Your task to perform on an android device: Set the phone to "Do not disturb". Image 0: 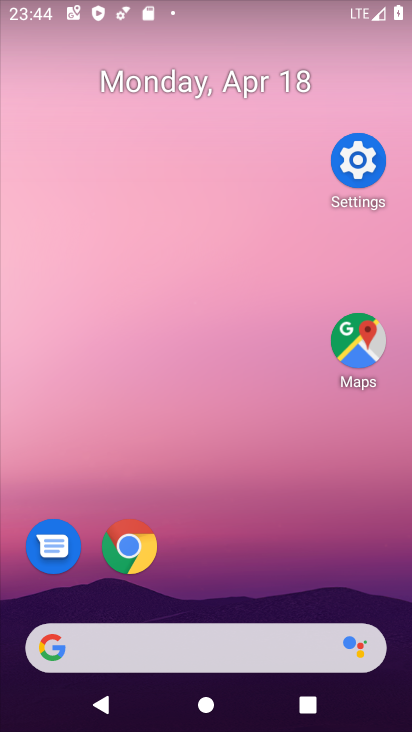
Step 0: drag from (268, 684) to (171, 220)
Your task to perform on an android device: Set the phone to "Do not disturb". Image 1: 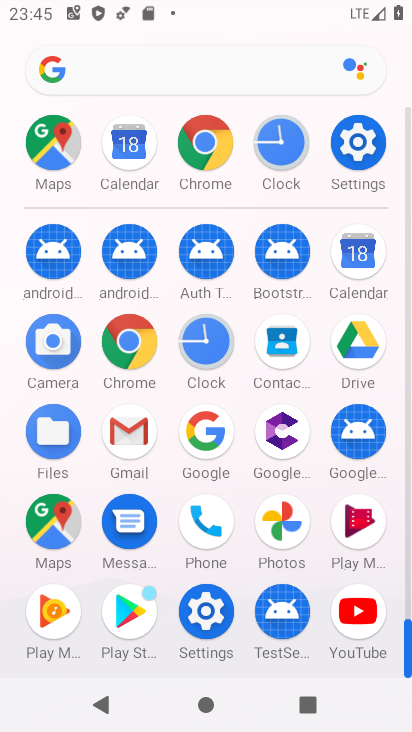
Step 1: click (353, 149)
Your task to perform on an android device: Set the phone to "Do not disturb". Image 2: 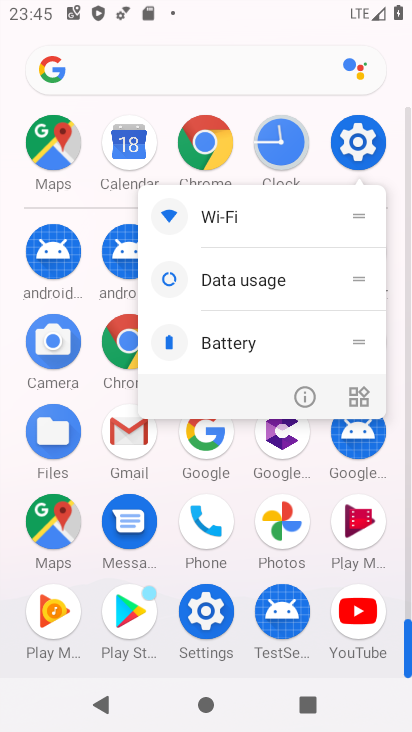
Step 2: click (355, 150)
Your task to perform on an android device: Set the phone to "Do not disturb". Image 3: 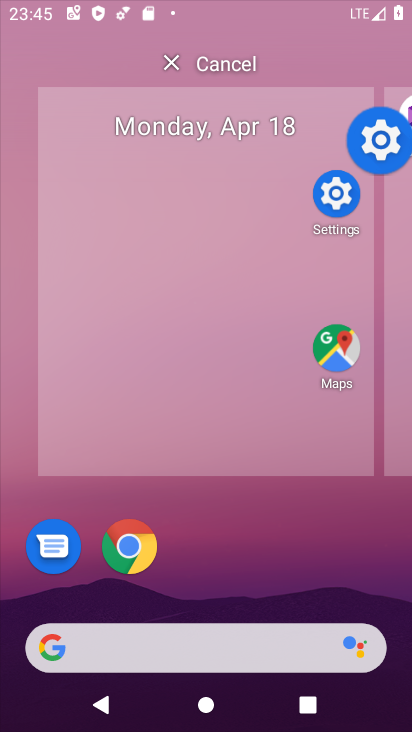
Step 3: click (345, 141)
Your task to perform on an android device: Set the phone to "Do not disturb". Image 4: 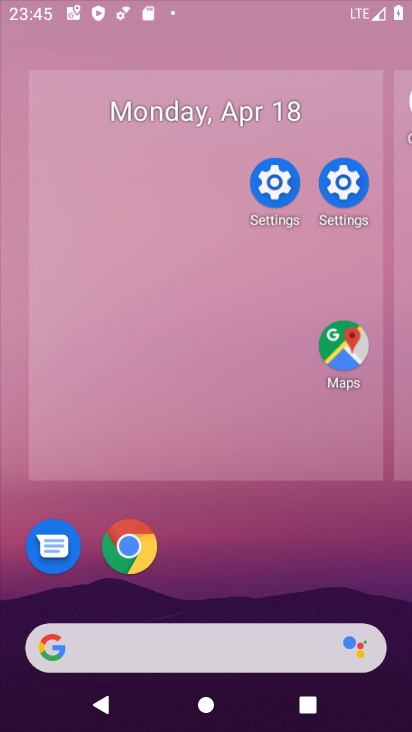
Step 4: click (346, 142)
Your task to perform on an android device: Set the phone to "Do not disturb". Image 5: 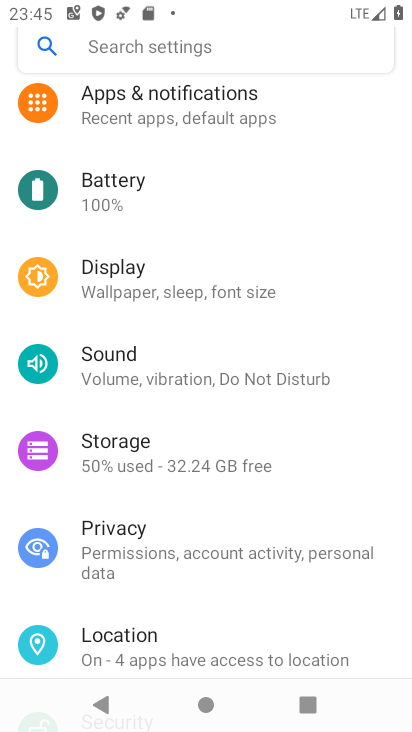
Step 5: click (112, 374)
Your task to perform on an android device: Set the phone to "Do not disturb". Image 6: 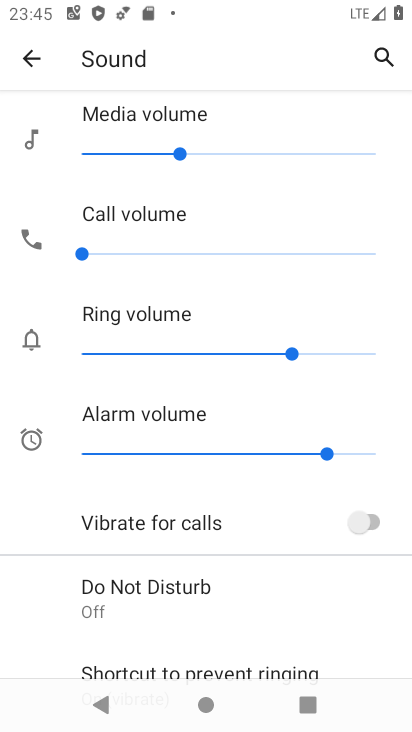
Step 6: drag from (177, 610) to (195, 308)
Your task to perform on an android device: Set the phone to "Do not disturb". Image 7: 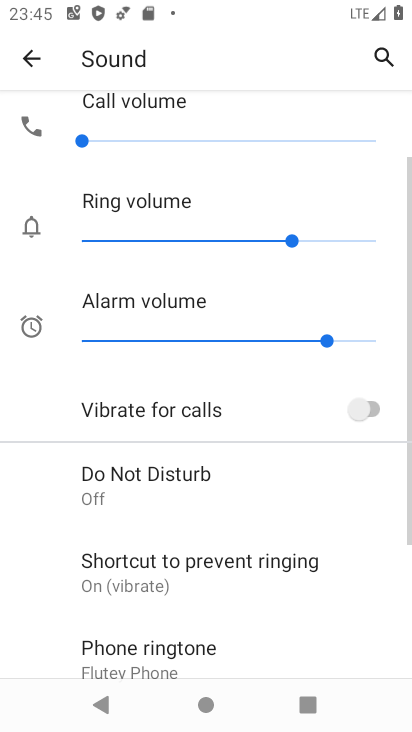
Step 7: drag from (220, 592) to (219, 345)
Your task to perform on an android device: Set the phone to "Do not disturb". Image 8: 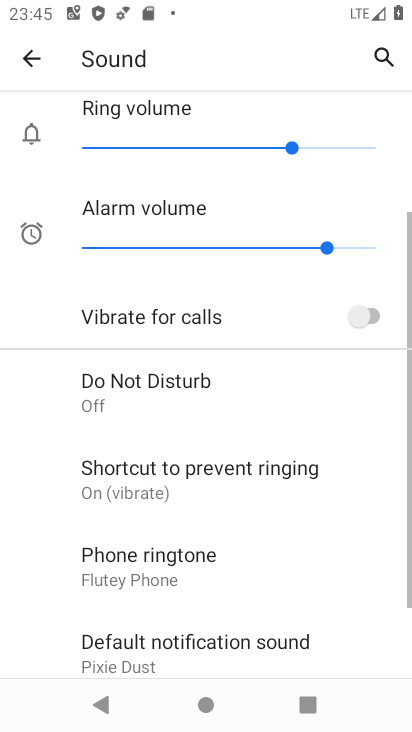
Step 8: drag from (192, 571) to (230, 253)
Your task to perform on an android device: Set the phone to "Do not disturb". Image 9: 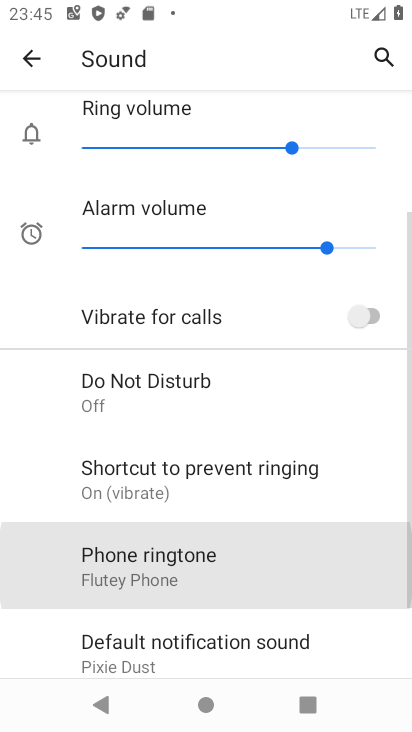
Step 9: drag from (142, 634) to (282, 311)
Your task to perform on an android device: Set the phone to "Do not disturb". Image 10: 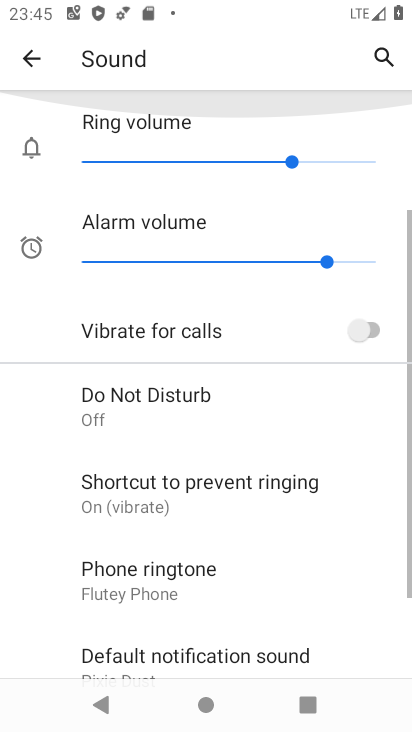
Step 10: drag from (256, 501) to (273, 176)
Your task to perform on an android device: Set the phone to "Do not disturb". Image 11: 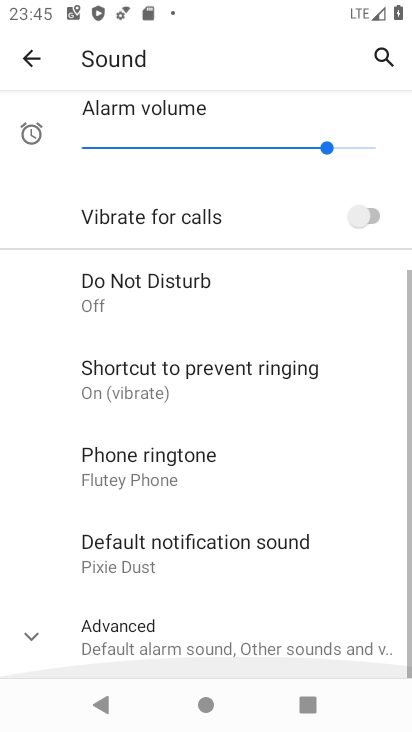
Step 11: drag from (254, 530) to (219, 181)
Your task to perform on an android device: Set the phone to "Do not disturb". Image 12: 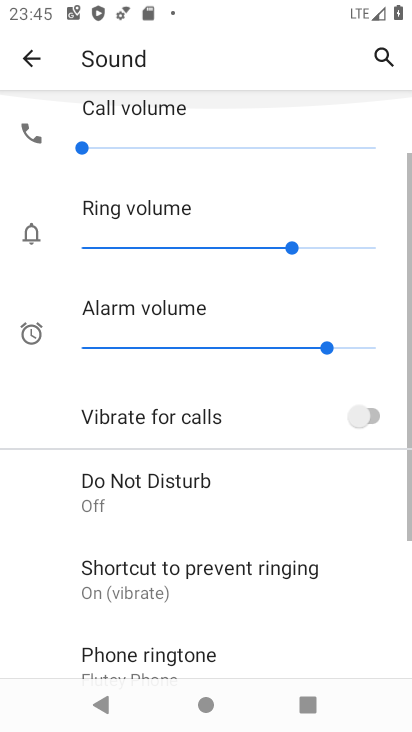
Step 12: drag from (189, 682) to (231, 273)
Your task to perform on an android device: Set the phone to "Do not disturb". Image 13: 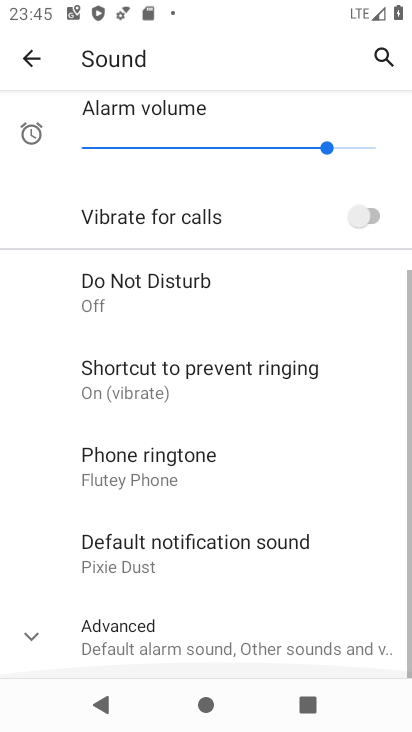
Step 13: drag from (261, 627) to (203, 280)
Your task to perform on an android device: Set the phone to "Do not disturb". Image 14: 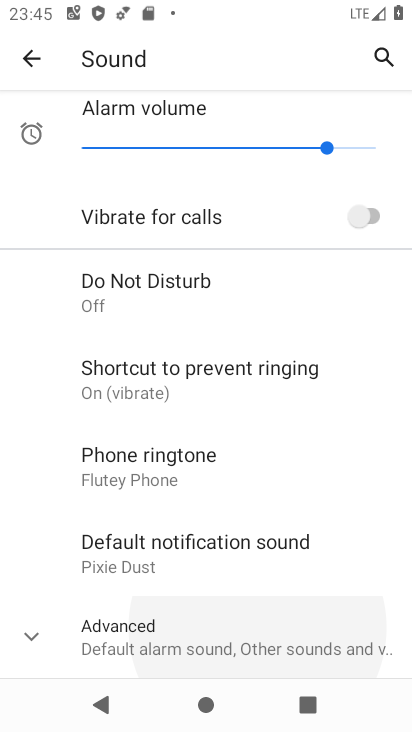
Step 14: drag from (217, 512) to (184, 194)
Your task to perform on an android device: Set the phone to "Do not disturb". Image 15: 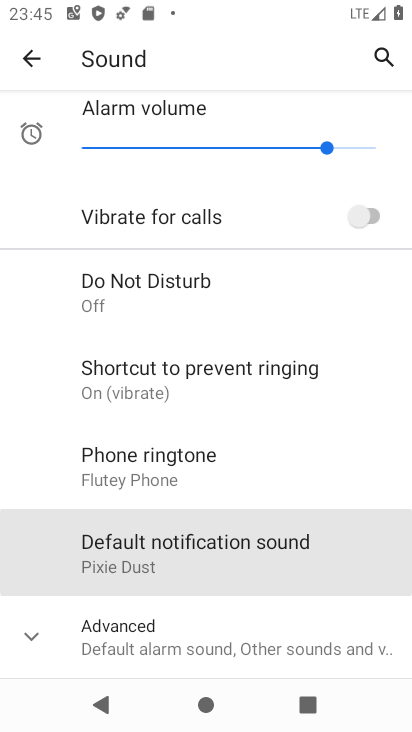
Step 15: drag from (195, 466) to (212, 305)
Your task to perform on an android device: Set the phone to "Do not disturb". Image 16: 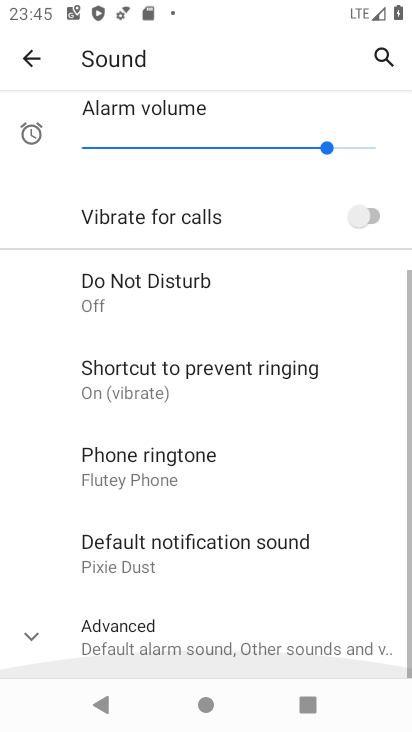
Step 16: drag from (272, 482) to (285, 148)
Your task to perform on an android device: Set the phone to "Do not disturb". Image 17: 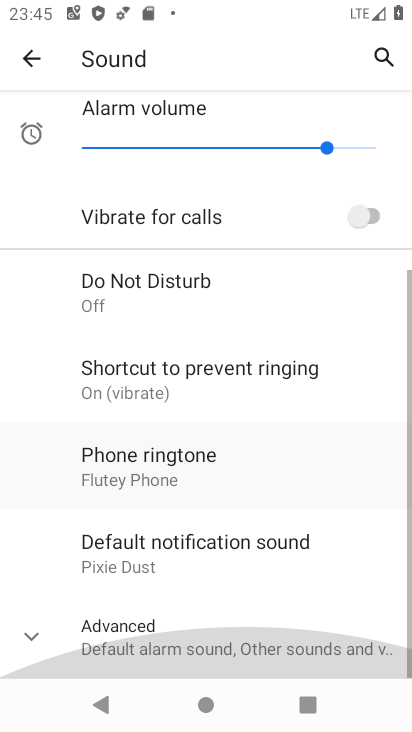
Step 17: drag from (301, 445) to (194, 299)
Your task to perform on an android device: Set the phone to "Do not disturb". Image 18: 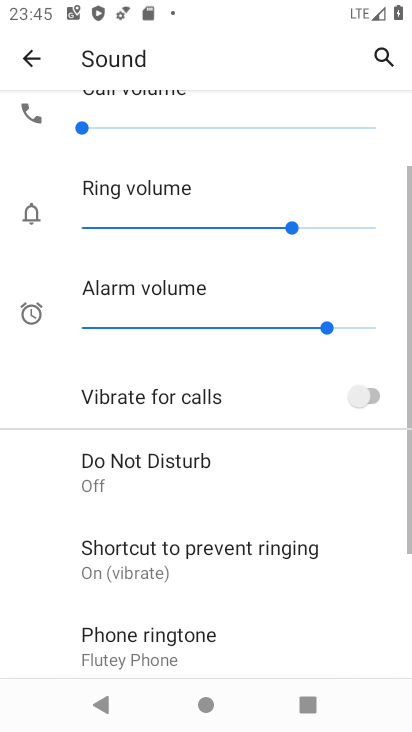
Step 18: drag from (273, 581) to (264, 399)
Your task to perform on an android device: Set the phone to "Do not disturb". Image 19: 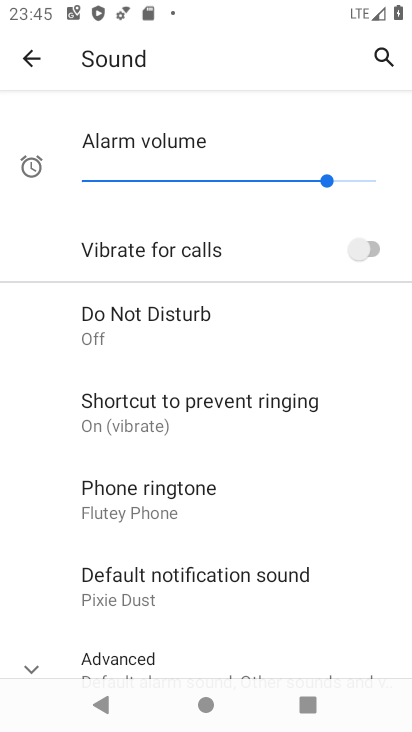
Step 19: drag from (270, 462) to (237, 270)
Your task to perform on an android device: Set the phone to "Do not disturb". Image 20: 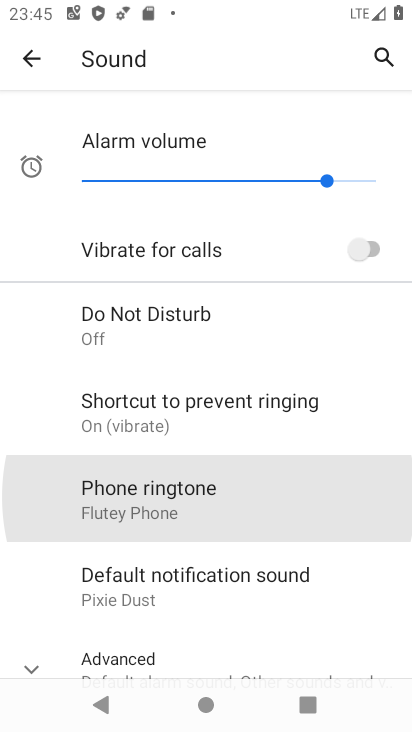
Step 20: drag from (218, 405) to (144, 287)
Your task to perform on an android device: Set the phone to "Do not disturb". Image 21: 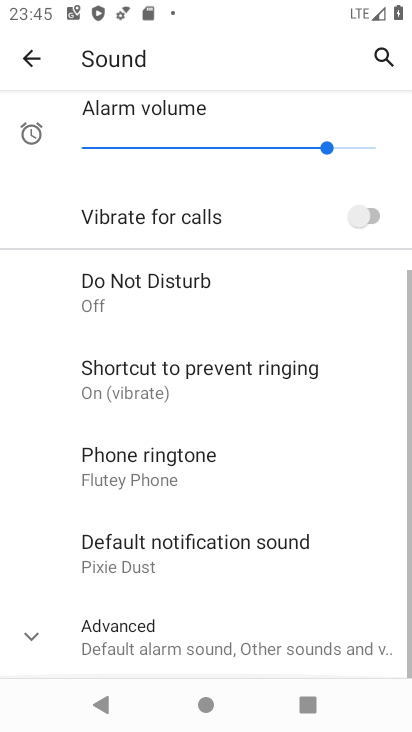
Step 21: drag from (103, 636) to (292, 385)
Your task to perform on an android device: Set the phone to "Do not disturb". Image 22: 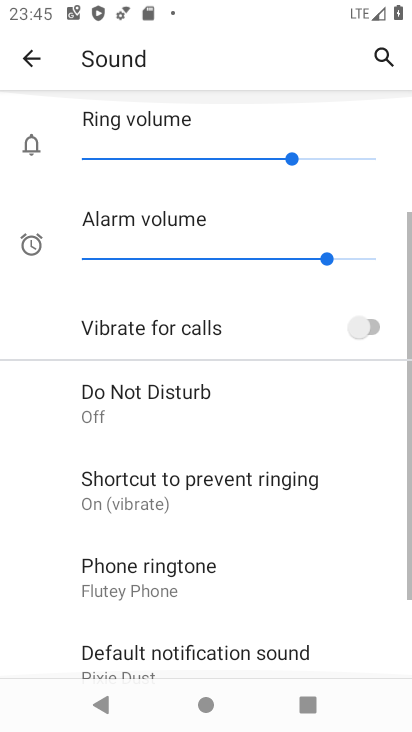
Step 22: drag from (210, 492) to (313, 419)
Your task to perform on an android device: Set the phone to "Do not disturb". Image 23: 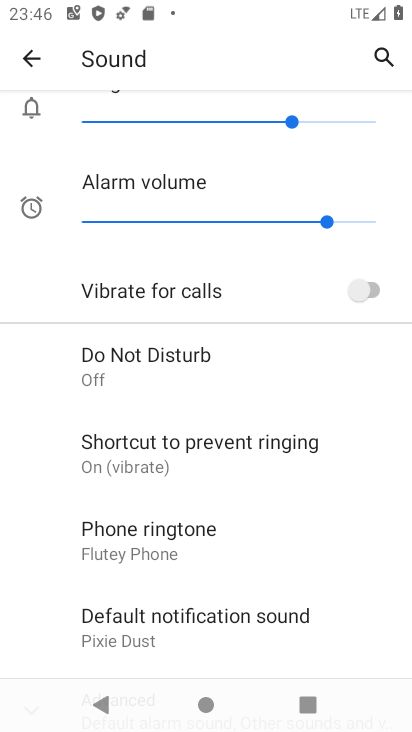
Step 23: drag from (176, 544) to (201, 273)
Your task to perform on an android device: Set the phone to "Do not disturb". Image 24: 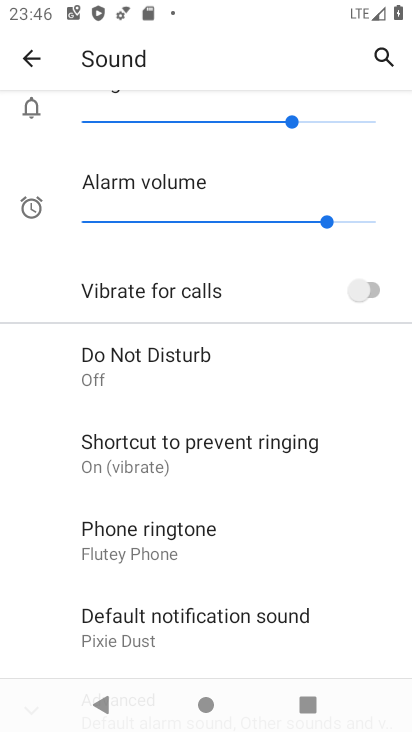
Step 24: drag from (249, 406) to (256, 132)
Your task to perform on an android device: Set the phone to "Do not disturb". Image 25: 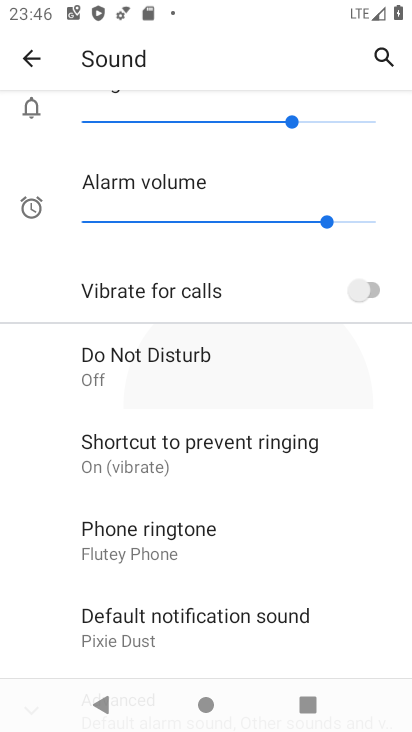
Step 25: drag from (183, 486) to (197, 208)
Your task to perform on an android device: Set the phone to "Do not disturb". Image 26: 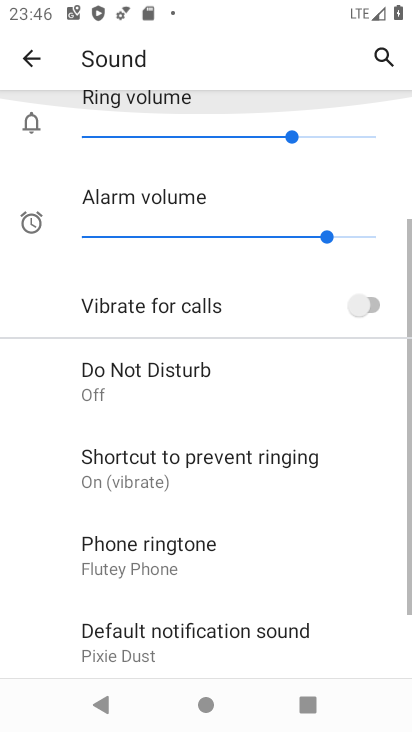
Step 26: drag from (274, 481) to (274, 329)
Your task to perform on an android device: Set the phone to "Do not disturb". Image 27: 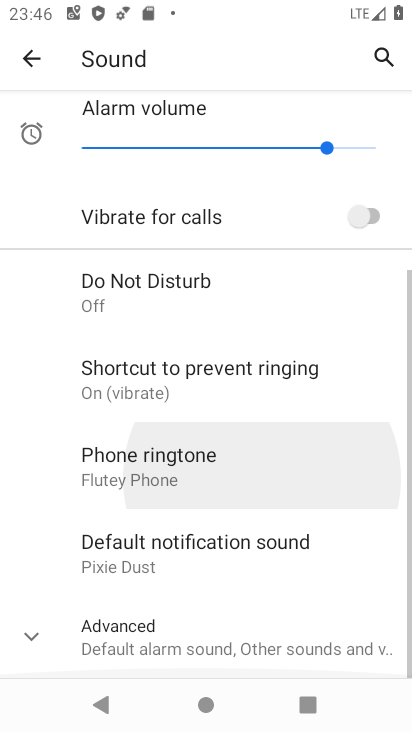
Step 27: drag from (238, 699) to (261, 378)
Your task to perform on an android device: Set the phone to "Do not disturb". Image 28: 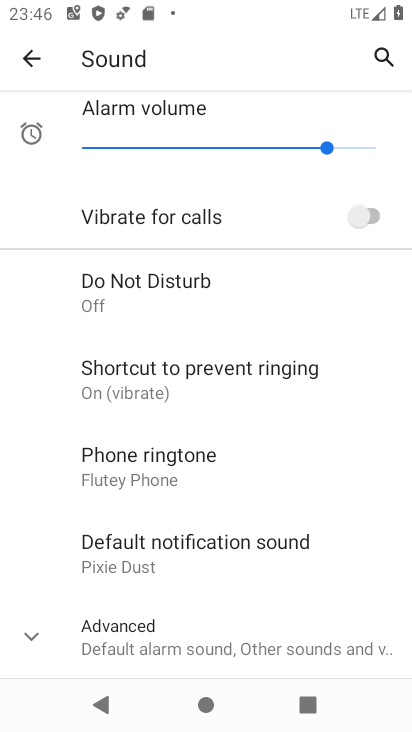
Step 28: drag from (213, 614) to (188, 341)
Your task to perform on an android device: Set the phone to "Do not disturb". Image 29: 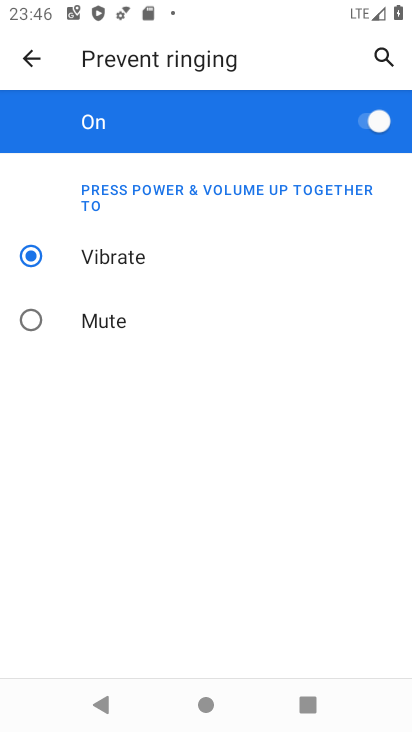
Step 29: click (32, 59)
Your task to perform on an android device: Set the phone to "Do not disturb". Image 30: 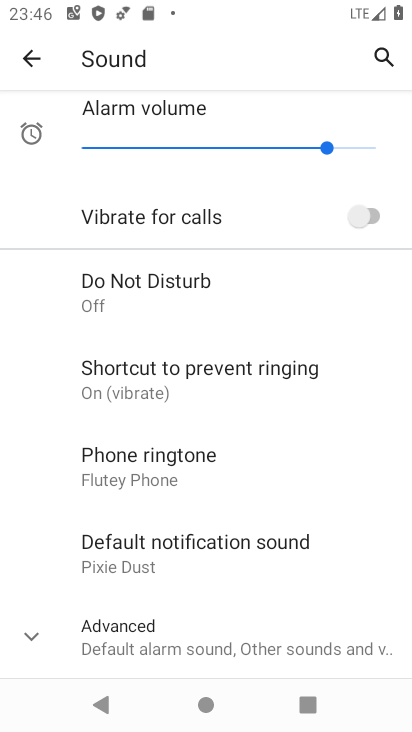
Step 30: click (126, 280)
Your task to perform on an android device: Set the phone to "Do not disturb". Image 31: 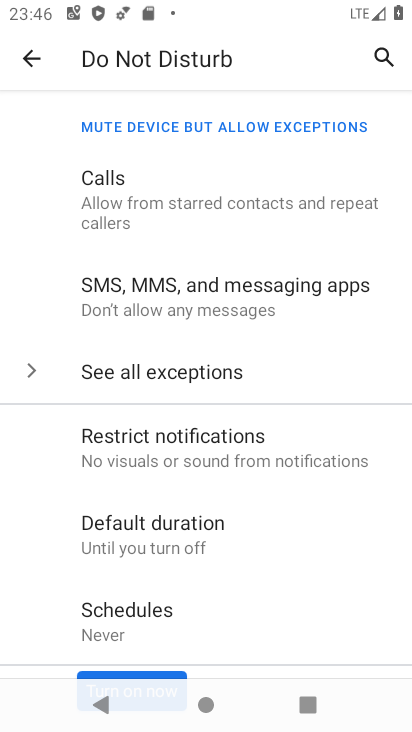
Step 31: drag from (171, 618) to (166, 300)
Your task to perform on an android device: Set the phone to "Do not disturb". Image 32: 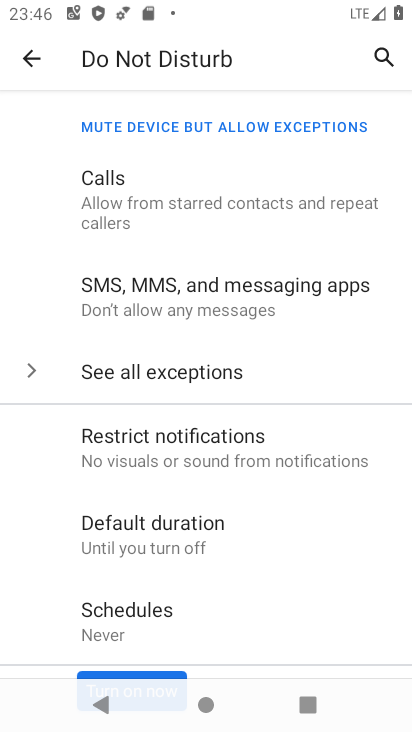
Step 32: drag from (168, 264) to (136, 505)
Your task to perform on an android device: Set the phone to "Do not disturb". Image 33: 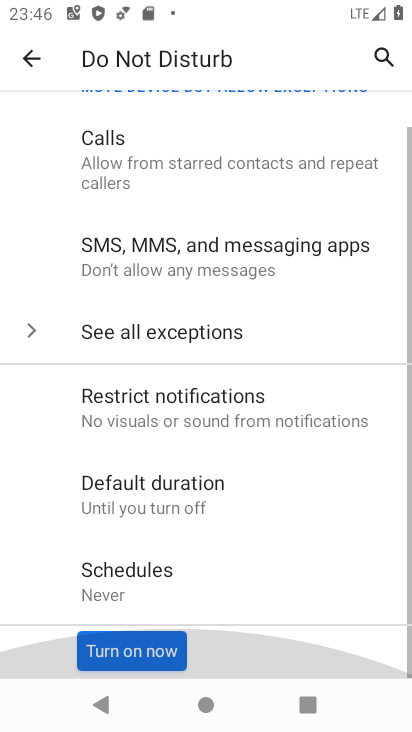
Step 33: drag from (138, 338) to (228, 592)
Your task to perform on an android device: Set the phone to "Do not disturb". Image 34: 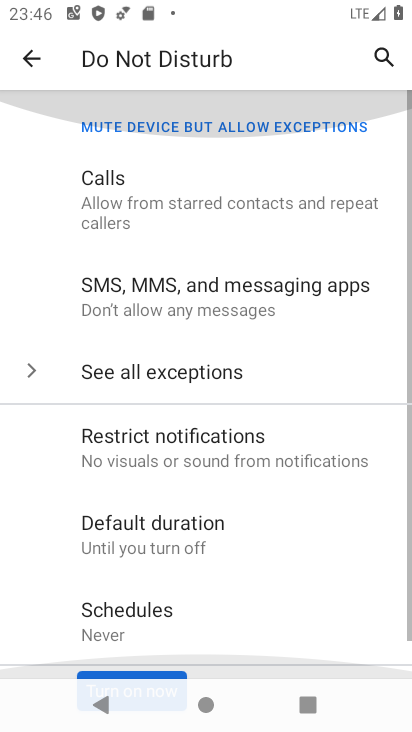
Step 34: click (228, 353)
Your task to perform on an android device: Set the phone to "Do not disturb". Image 35: 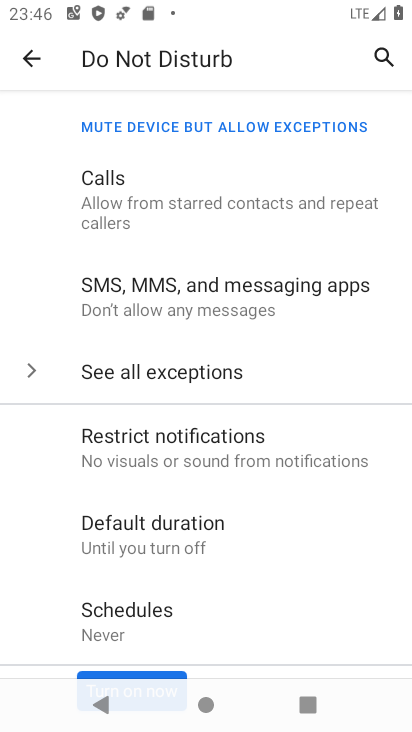
Step 35: drag from (159, 644) to (219, 326)
Your task to perform on an android device: Set the phone to "Do not disturb". Image 36: 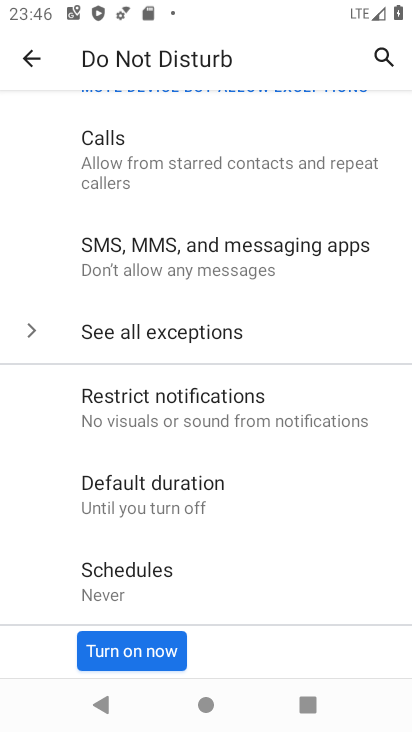
Step 36: click (111, 651)
Your task to perform on an android device: Set the phone to "Do not disturb". Image 37: 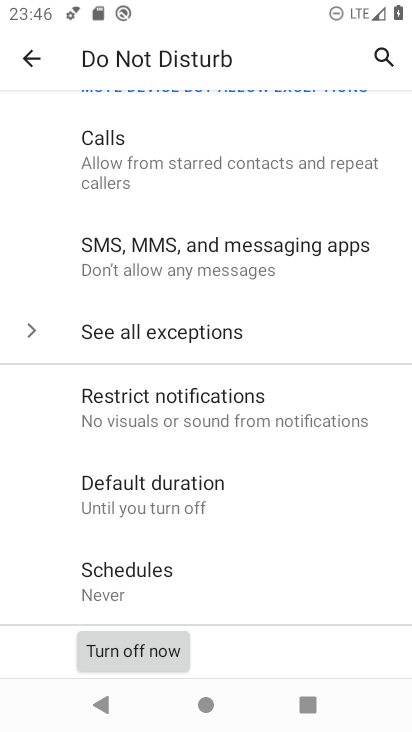
Step 37: task complete